Your task to perform on an android device: set the timer Image 0: 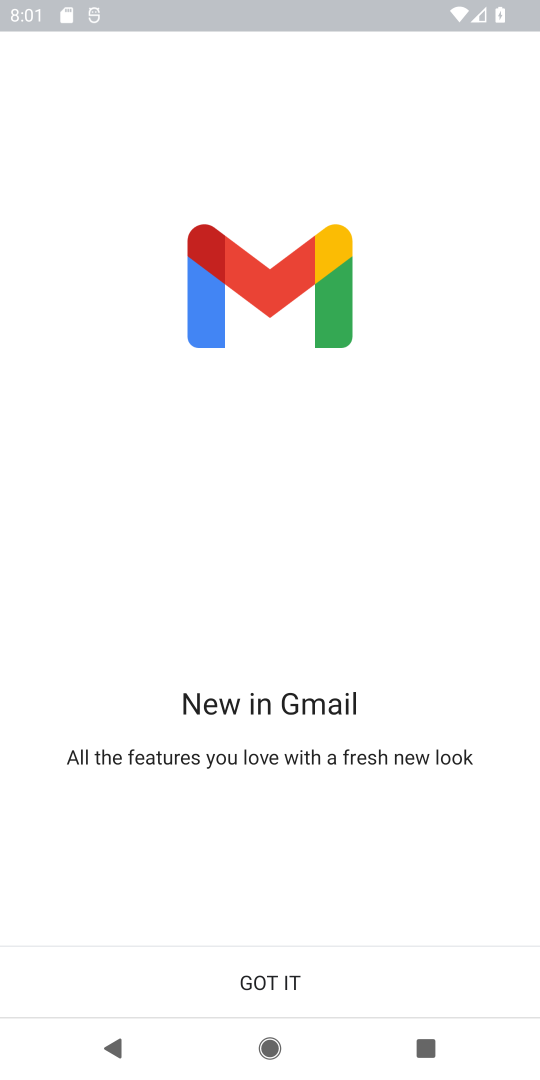
Step 0: press home button
Your task to perform on an android device: set the timer Image 1: 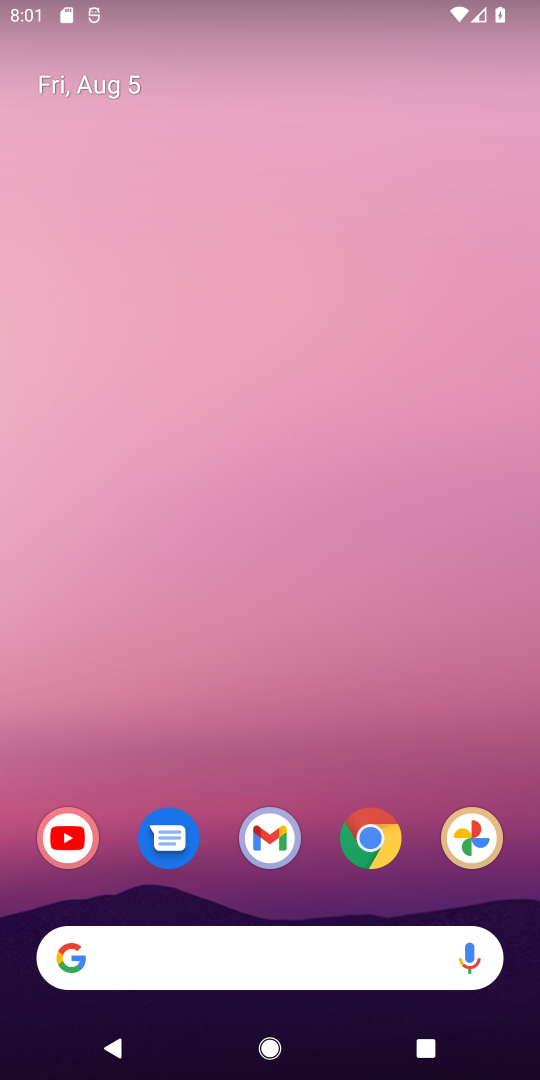
Step 1: drag from (197, 769) to (316, 109)
Your task to perform on an android device: set the timer Image 2: 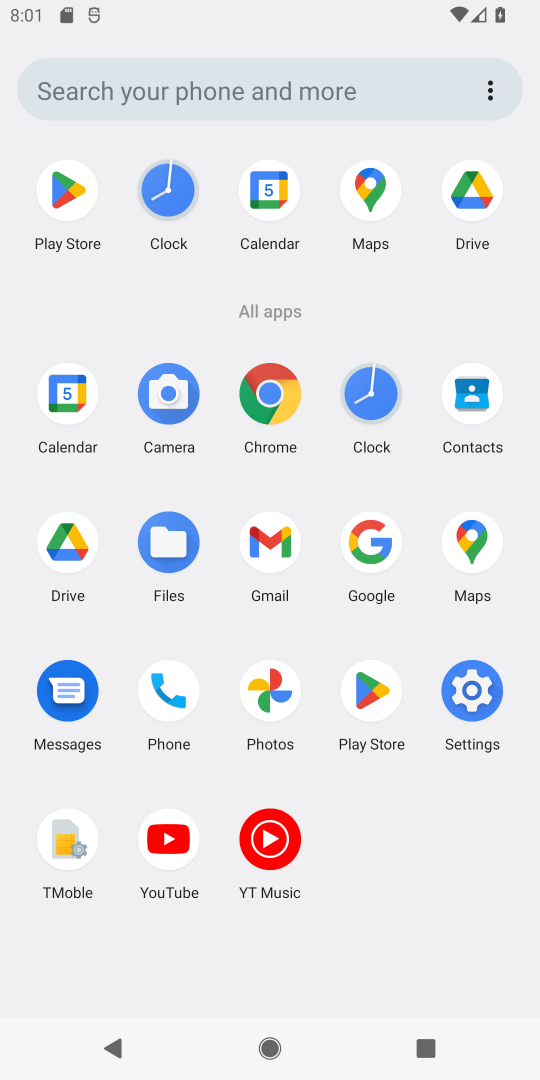
Step 2: click (367, 391)
Your task to perform on an android device: set the timer Image 3: 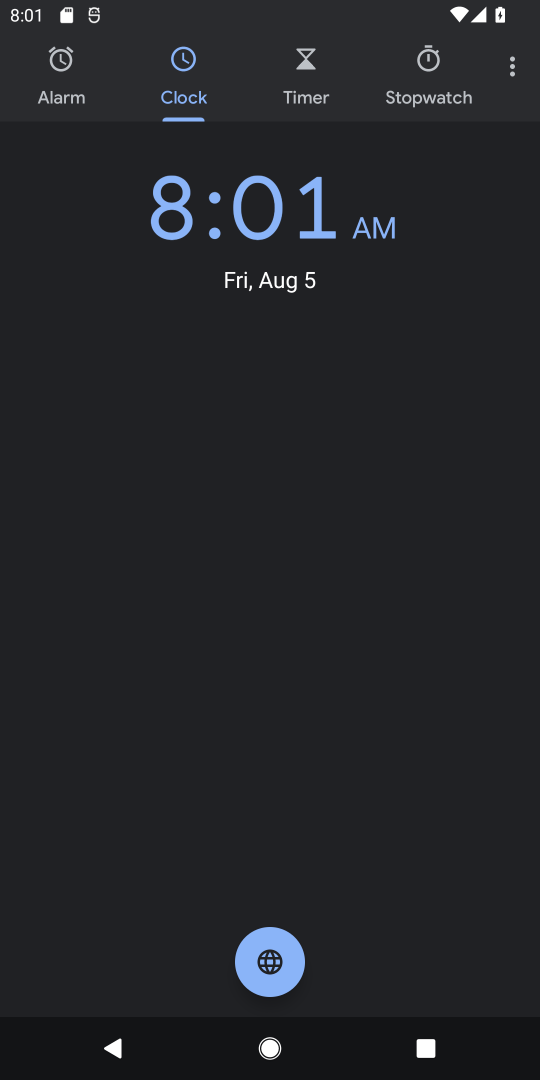
Step 3: click (318, 62)
Your task to perform on an android device: set the timer Image 4: 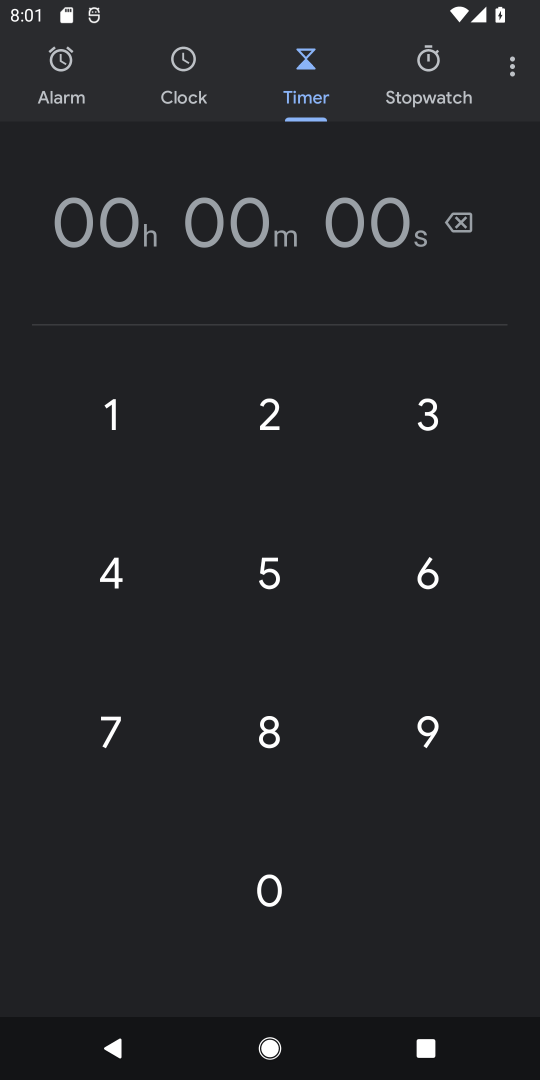
Step 4: click (269, 417)
Your task to perform on an android device: set the timer Image 5: 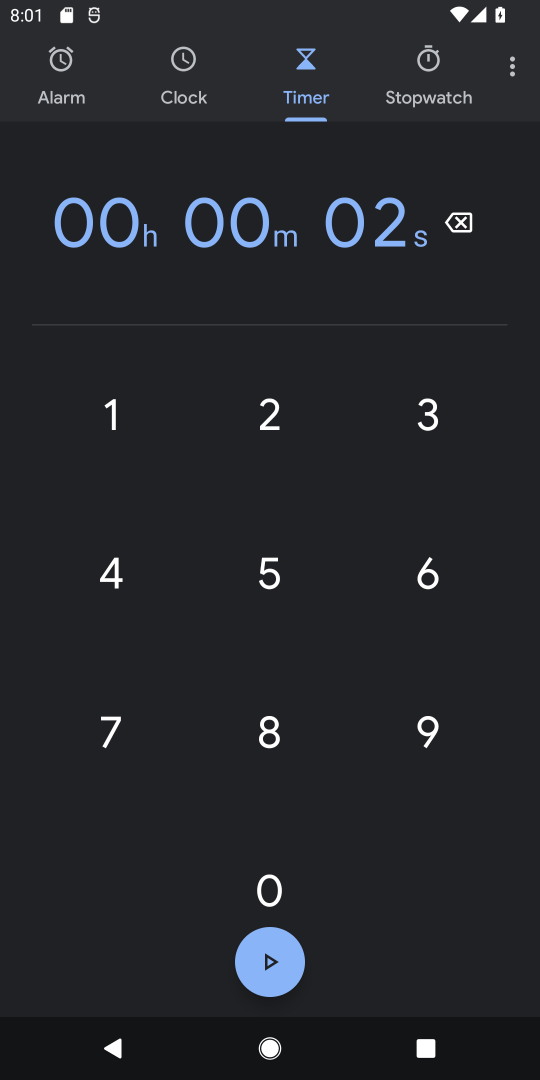
Step 5: click (277, 744)
Your task to perform on an android device: set the timer Image 6: 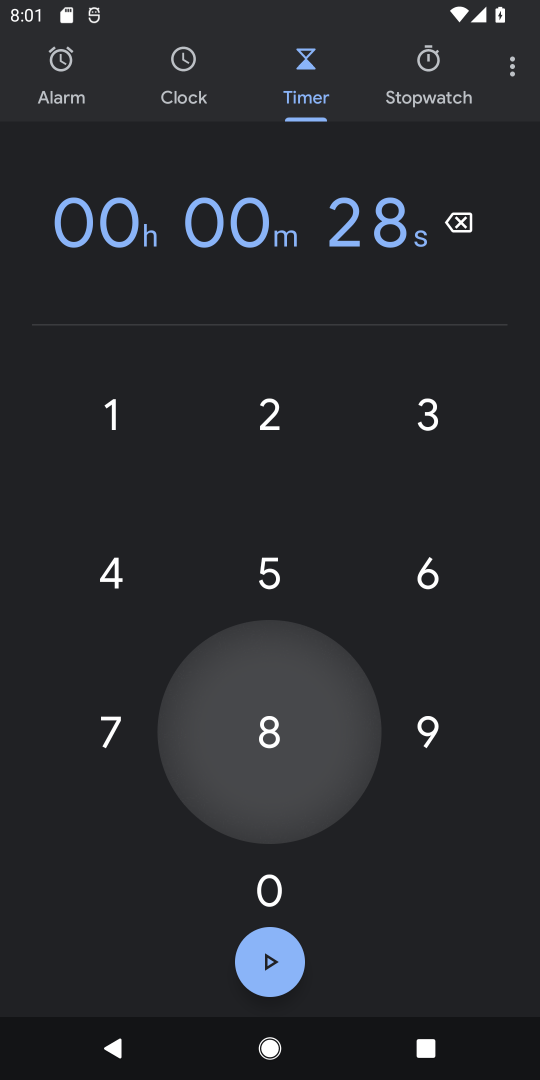
Step 6: click (277, 744)
Your task to perform on an android device: set the timer Image 7: 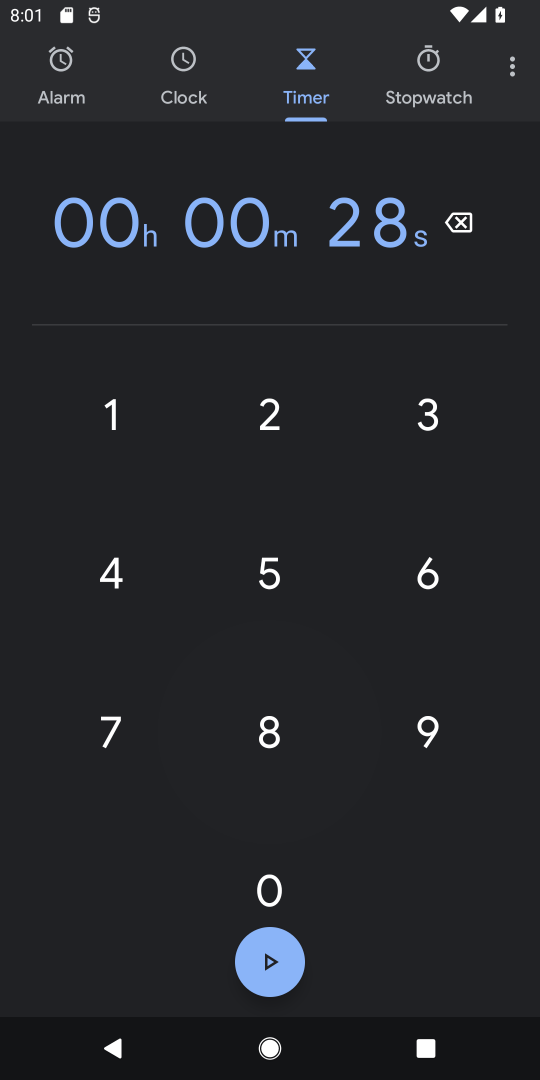
Step 7: click (277, 744)
Your task to perform on an android device: set the timer Image 8: 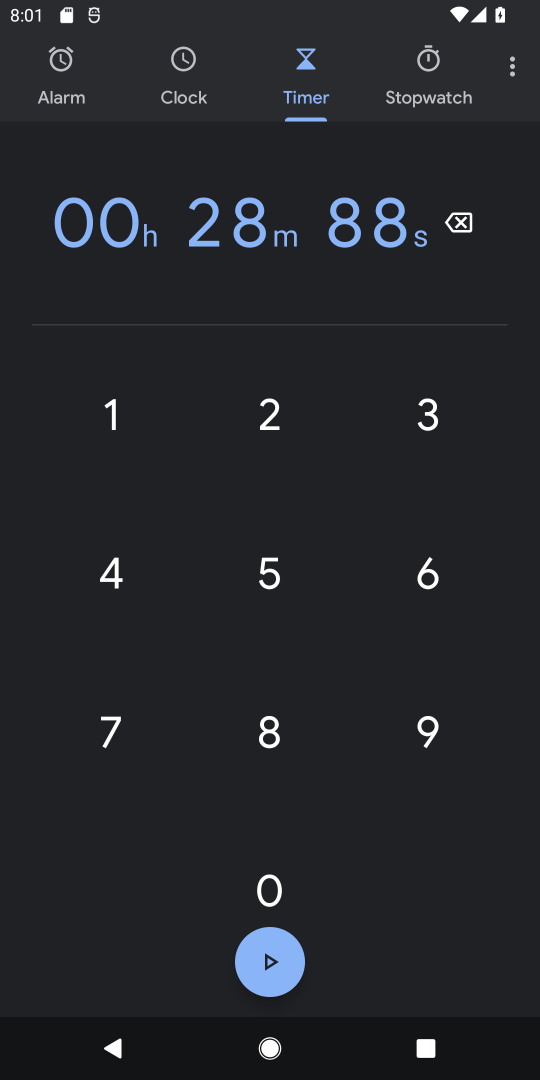
Step 8: click (277, 744)
Your task to perform on an android device: set the timer Image 9: 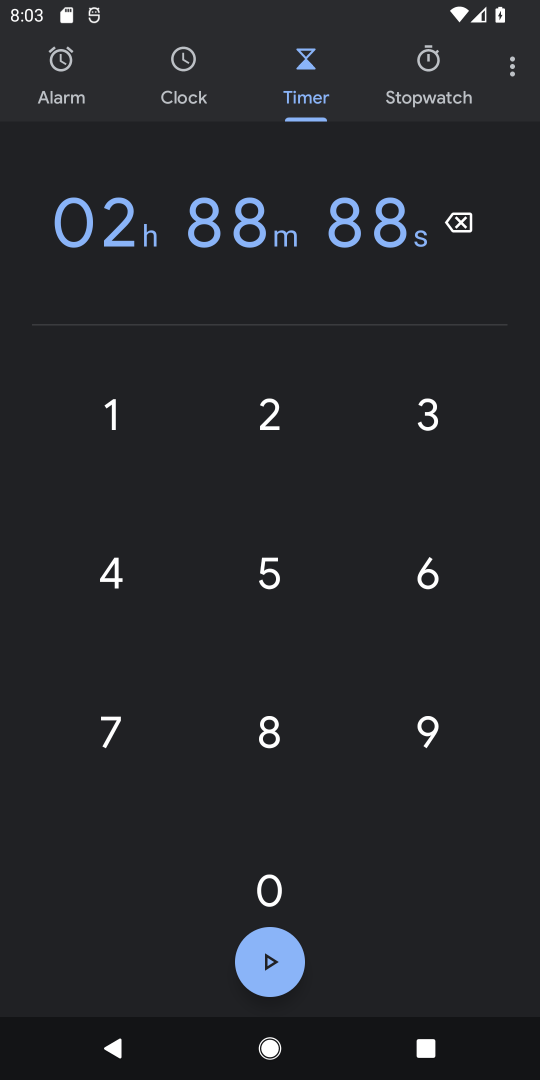
Step 9: task complete